Your task to perform on an android device: toggle sleep mode Image 0: 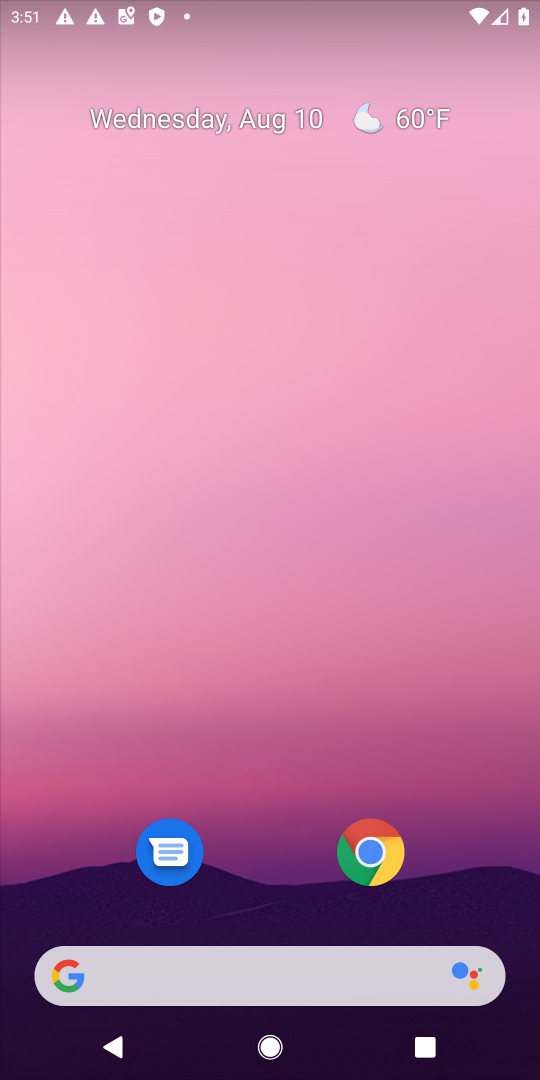
Step 0: drag from (497, 770) to (125, 146)
Your task to perform on an android device: toggle sleep mode Image 1: 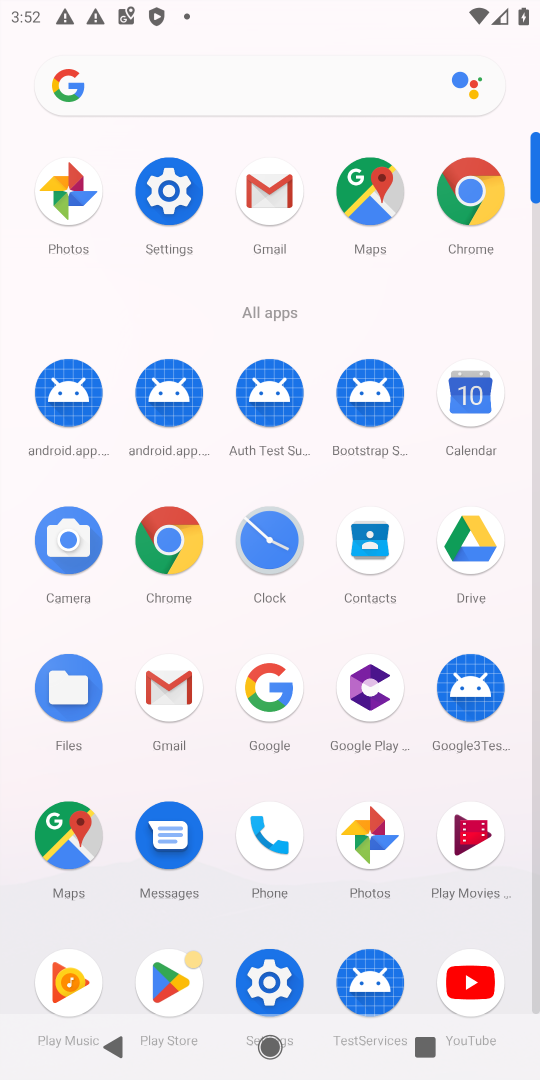
Step 1: click (264, 976)
Your task to perform on an android device: toggle sleep mode Image 2: 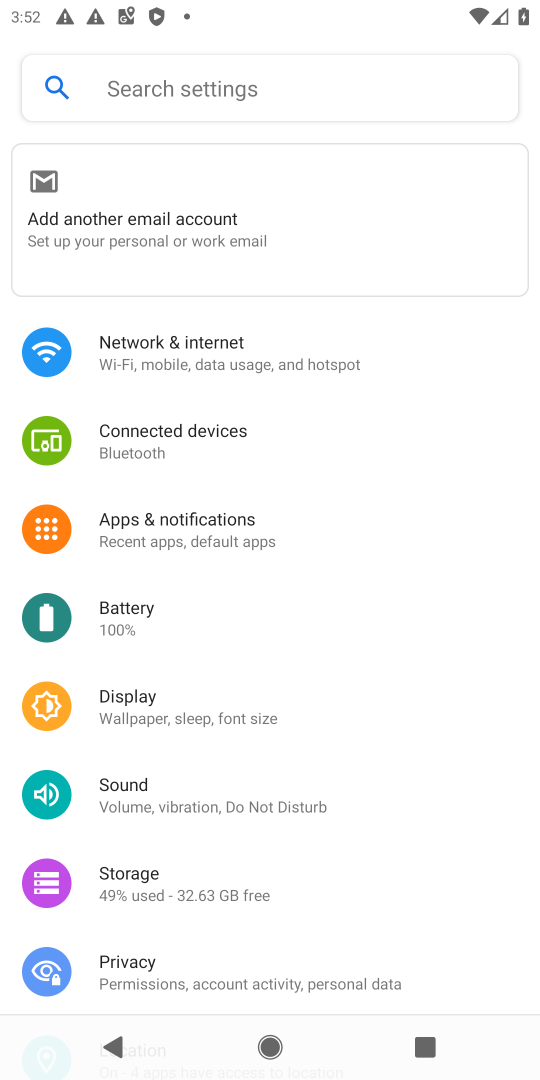
Step 2: click (159, 710)
Your task to perform on an android device: toggle sleep mode Image 3: 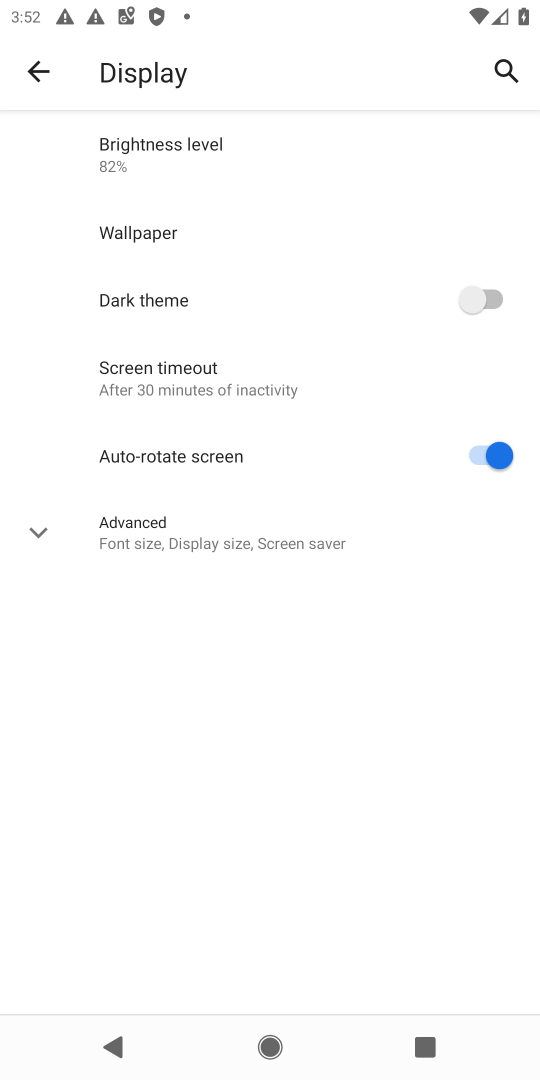
Step 3: click (183, 367)
Your task to perform on an android device: toggle sleep mode Image 4: 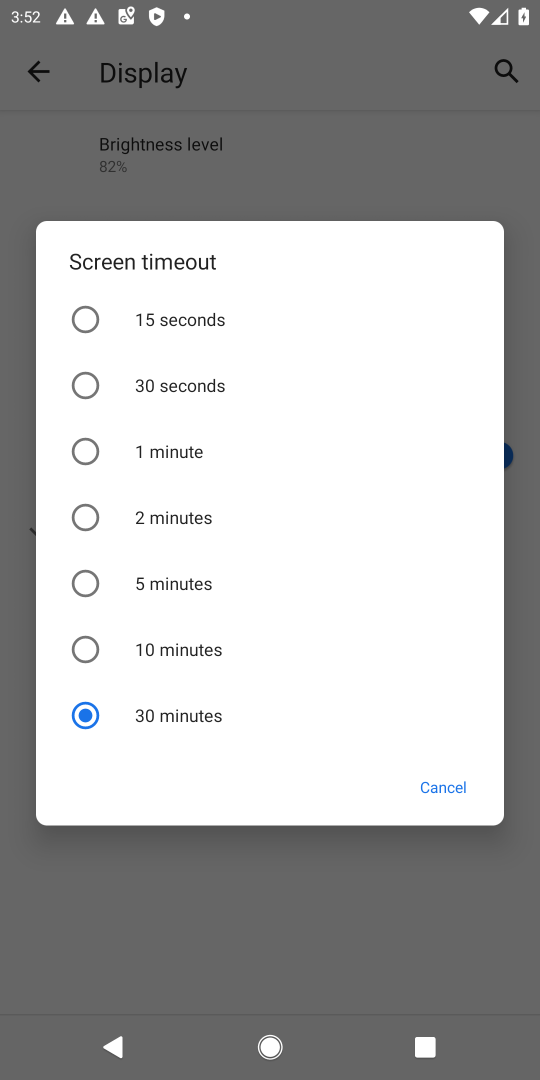
Step 4: click (105, 656)
Your task to perform on an android device: toggle sleep mode Image 5: 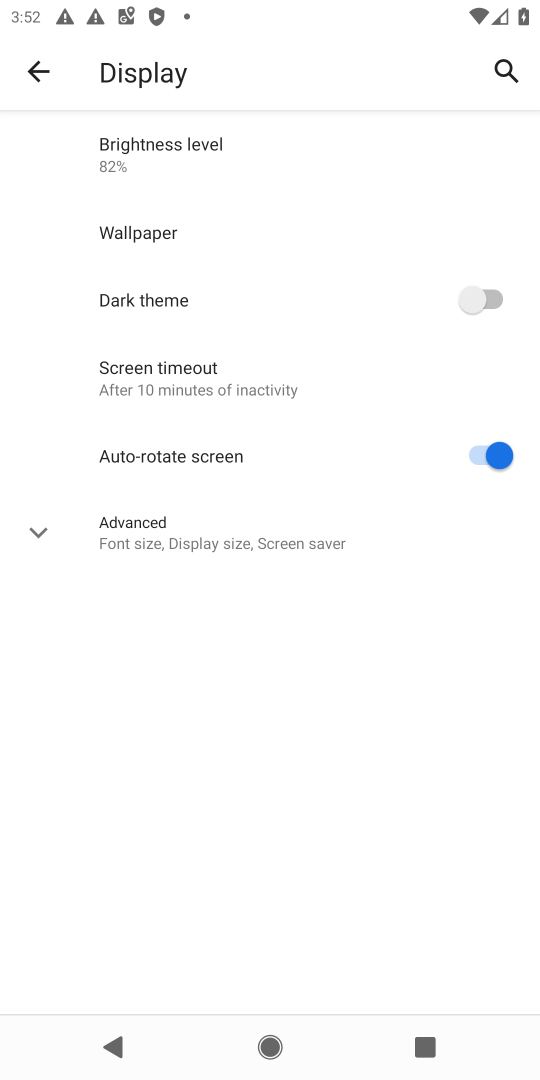
Step 5: task complete